Your task to perform on an android device: Go to calendar. Show me events next week Image 0: 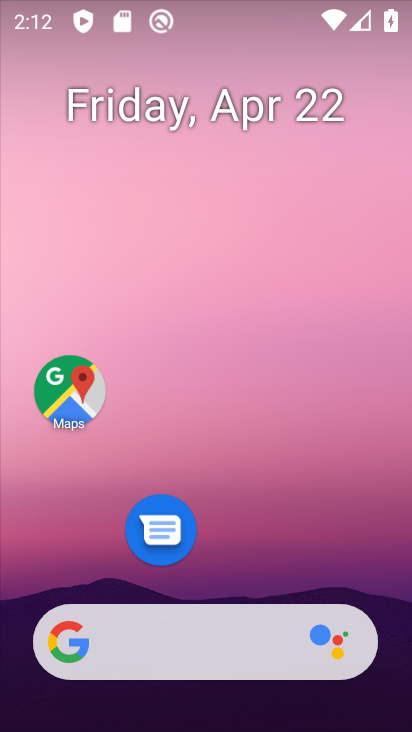
Step 0: drag from (267, 515) to (204, 95)
Your task to perform on an android device: Go to calendar. Show me events next week Image 1: 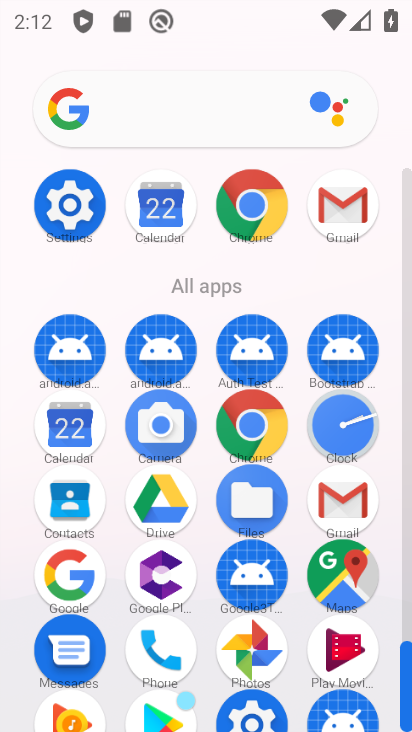
Step 1: click (72, 423)
Your task to perform on an android device: Go to calendar. Show me events next week Image 2: 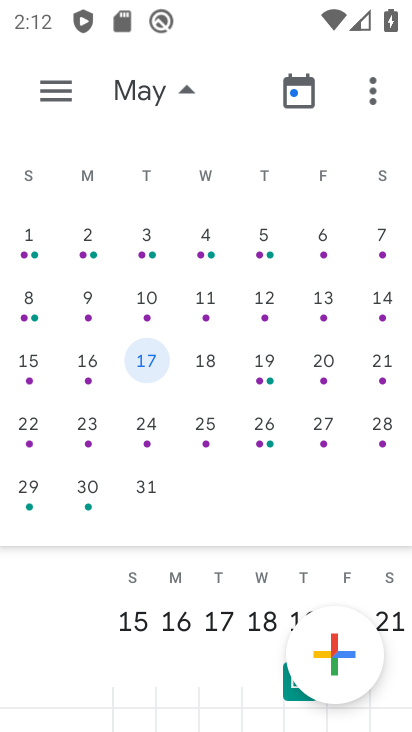
Step 2: drag from (276, 298) to (400, 277)
Your task to perform on an android device: Go to calendar. Show me events next week Image 3: 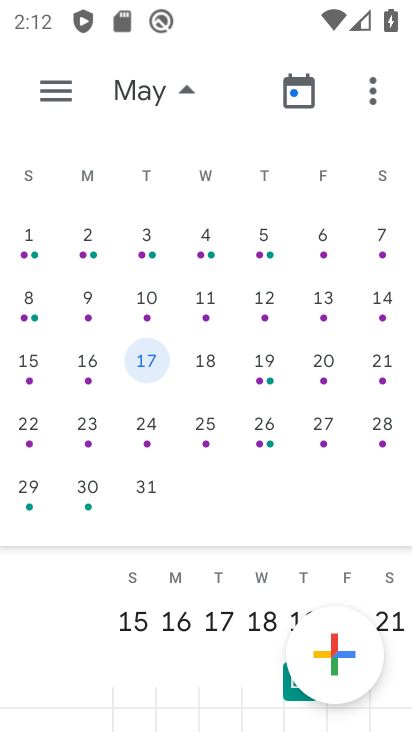
Step 3: click (91, 421)
Your task to perform on an android device: Go to calendar. Show me events next week Image 4: 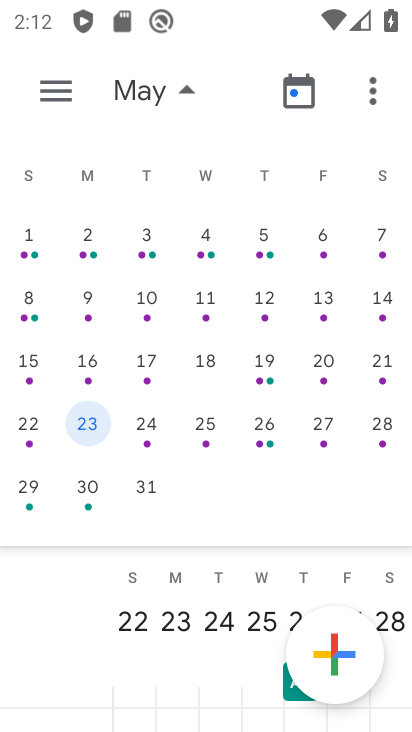
Step 4: task complete